Your task to perform on an android device: open chrome and create a bookmark for the current page Image 0: 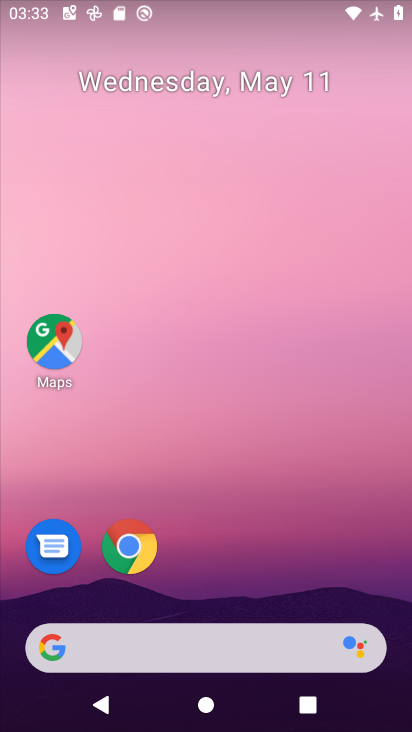
Step 0: drag from (194, 595) to (225, 43)
Your task to perform on an android device: open chrome and create a bookmark for the current page Image 1: 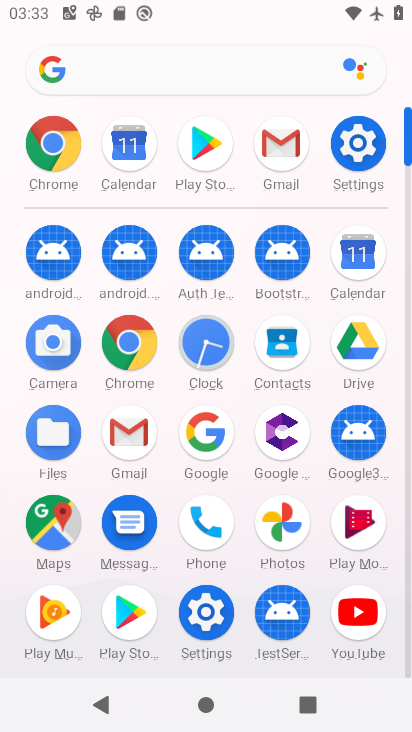
Step 1: click (129, 339)
Your task to perform on an android device: open chrome and create a bookmark for the current page Image 2: 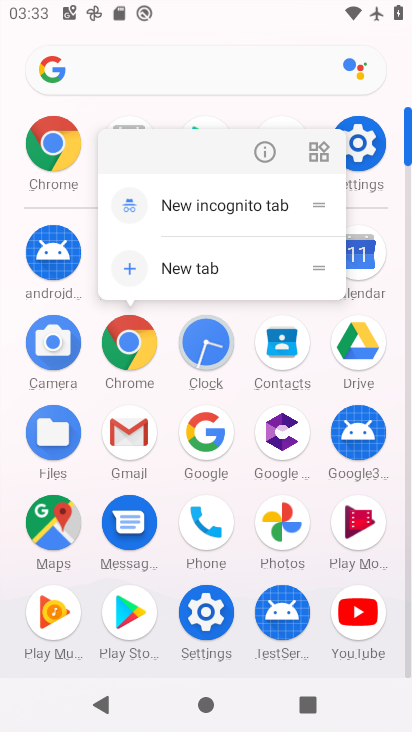
Step 2: click (258, 148)
Your task to perform on an android device: open chrome and create a bookmark for the current page Image 3: 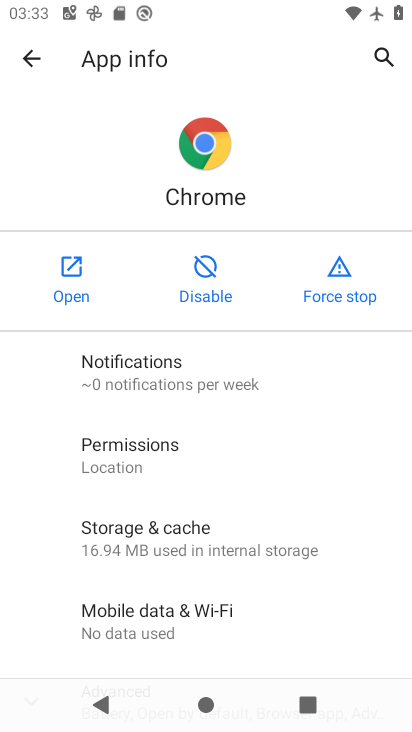
Step 3: click (73, 272)
Your task to perform on an android device: open chrome and create a bookmark for the current page Image 4: 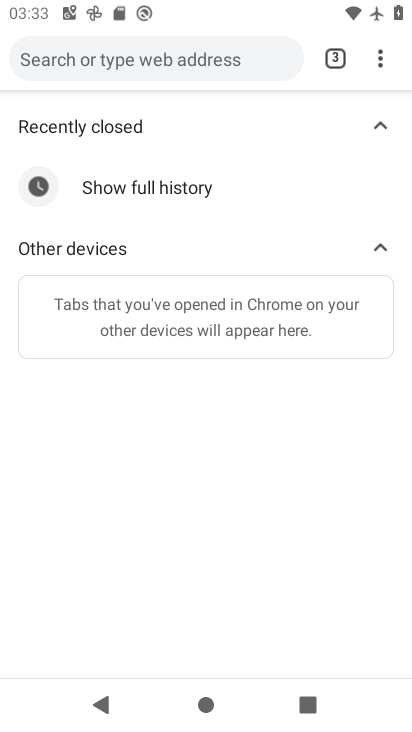
Step 4: click (382, 48)
Your task to perform on an android device: open chrome and create a bookmark for the current page Image 5: 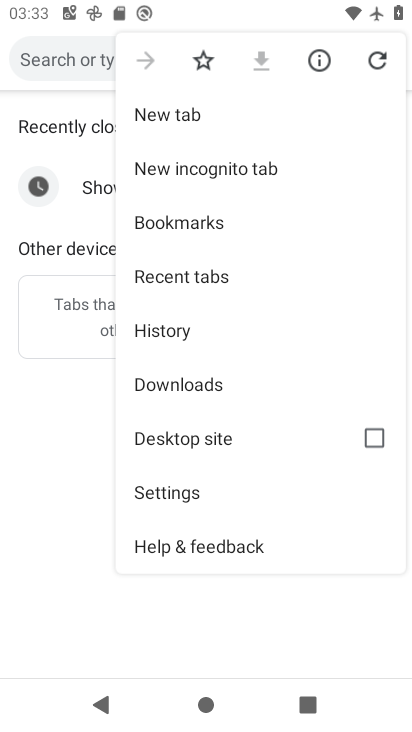
Step 5: click (194, 226)
Your task to perform on an android device: open chrome and create a bookmark for the current page Image 6: 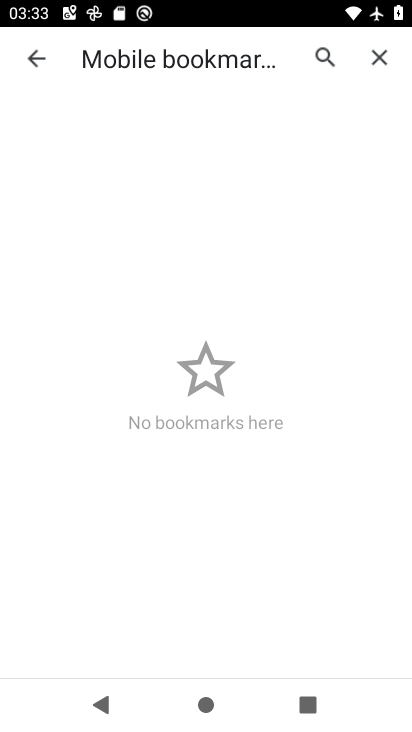
Step 6: click (206, 491)
Your task to perform on an android device: open chrome and create a bookmark for the current page Image 7: 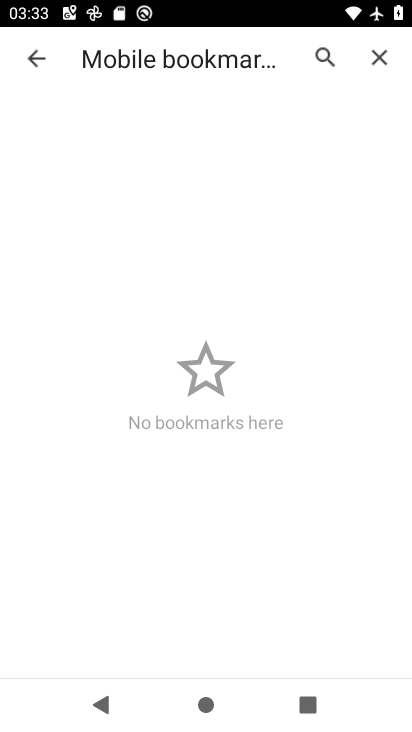
Step 7: click (201, 342)
Your task to perform on an android device: open chrome and create a bookmark for the current page Image 8: 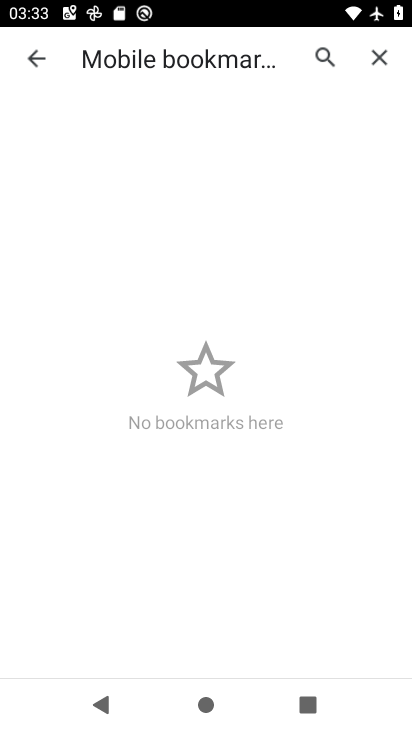
Step 8: click (228, 261)
Your task to perform on an android device: open chrome and create a bookmark for the current page Image 9: 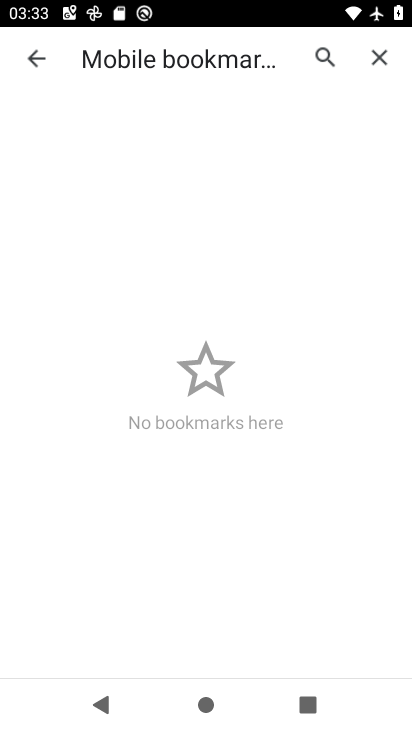
Step 9: click (379, 55)
Your task to perform on an android device: open chrome and create a bookmark for the current page Image 10: 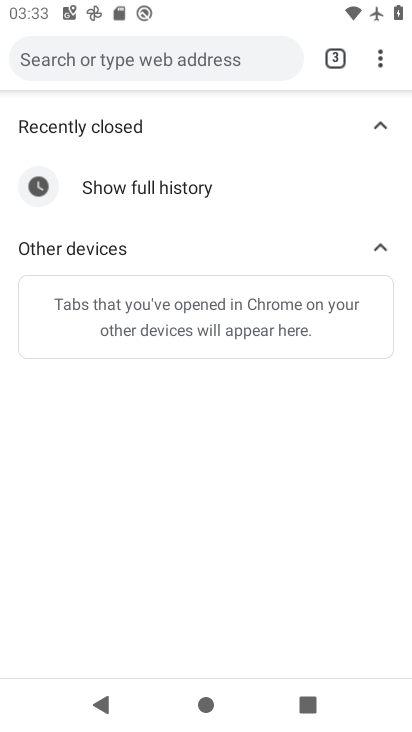
Step 10: click (383, 55)
Your task to perform on an android device: open chrome and create a bookmark for the current page Image 11: 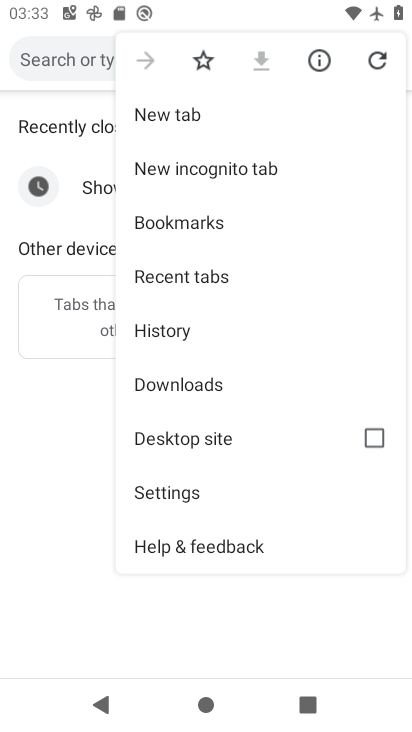
Step 11: click (200, 55)
Your task to perform on an android device: open chrome and create a bookmark for the current page Image 12: 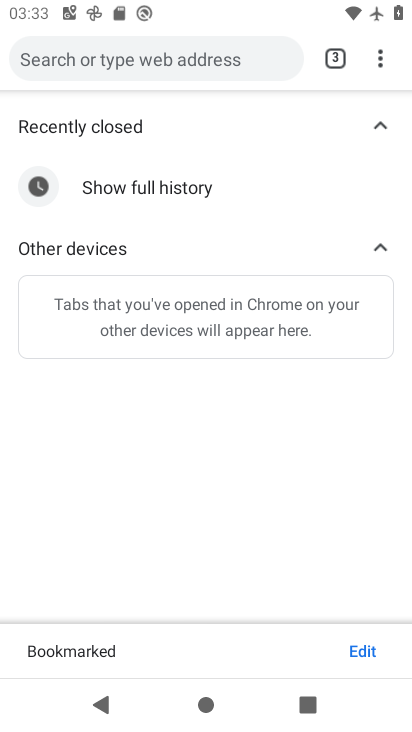
Step 12: task complete